Your task to perform on an android device: Open calendar and show me the fourth week of next month Image 0: 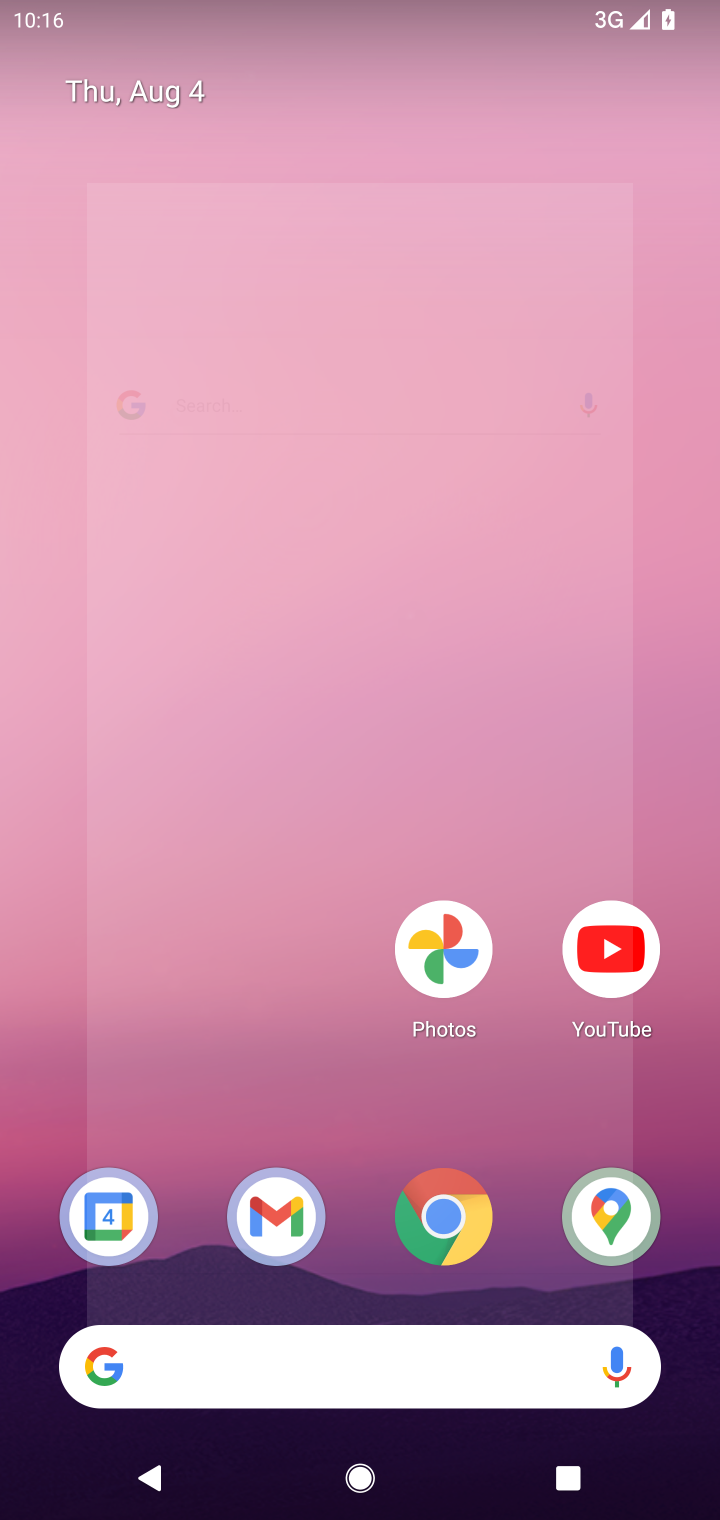
Step 0: press home button
Your task to perform on an android device: Open calendar and show me the fourth week of next month Image 1: 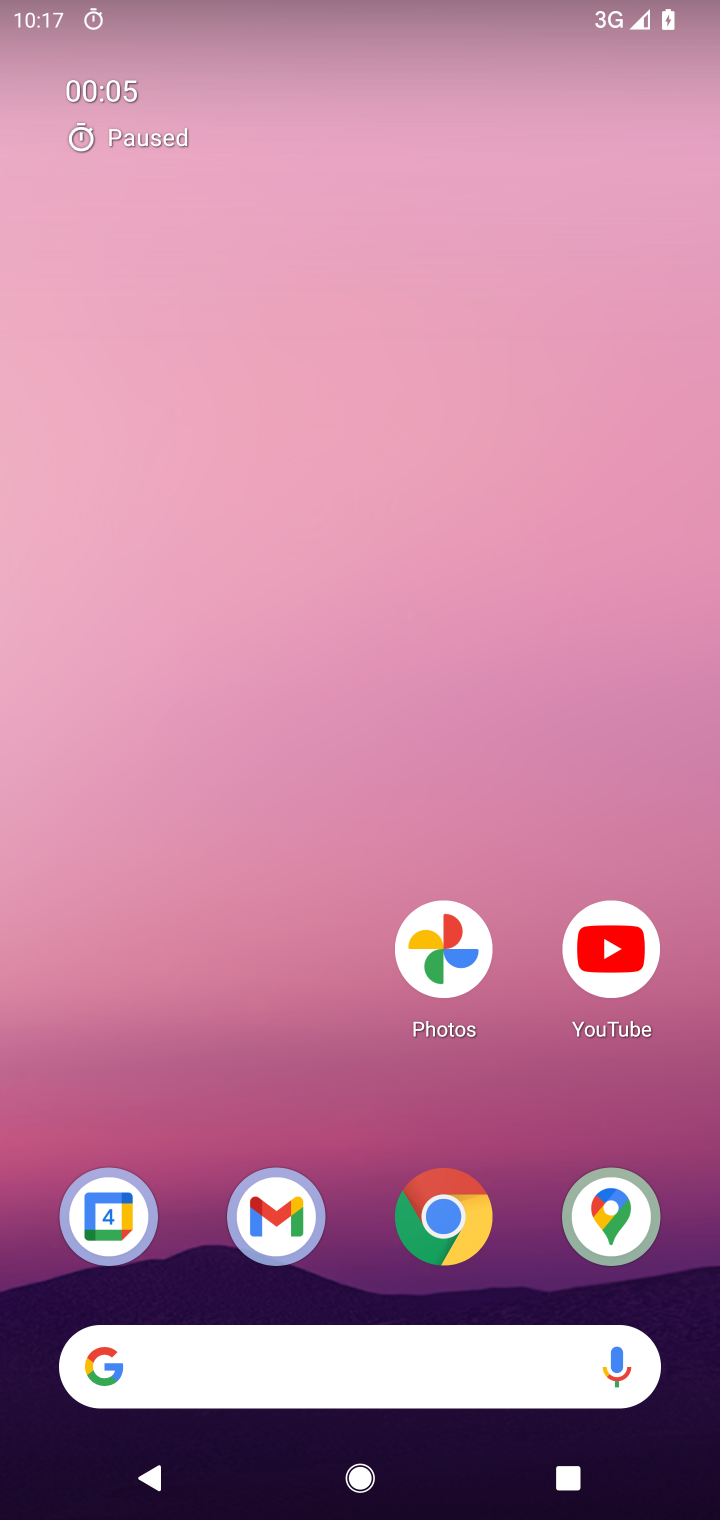
Step 1: drag from (346, 1087) to (324, 215)
Your task to perform on an android device: Open calendar and show me the fourth week of next month Image 2: 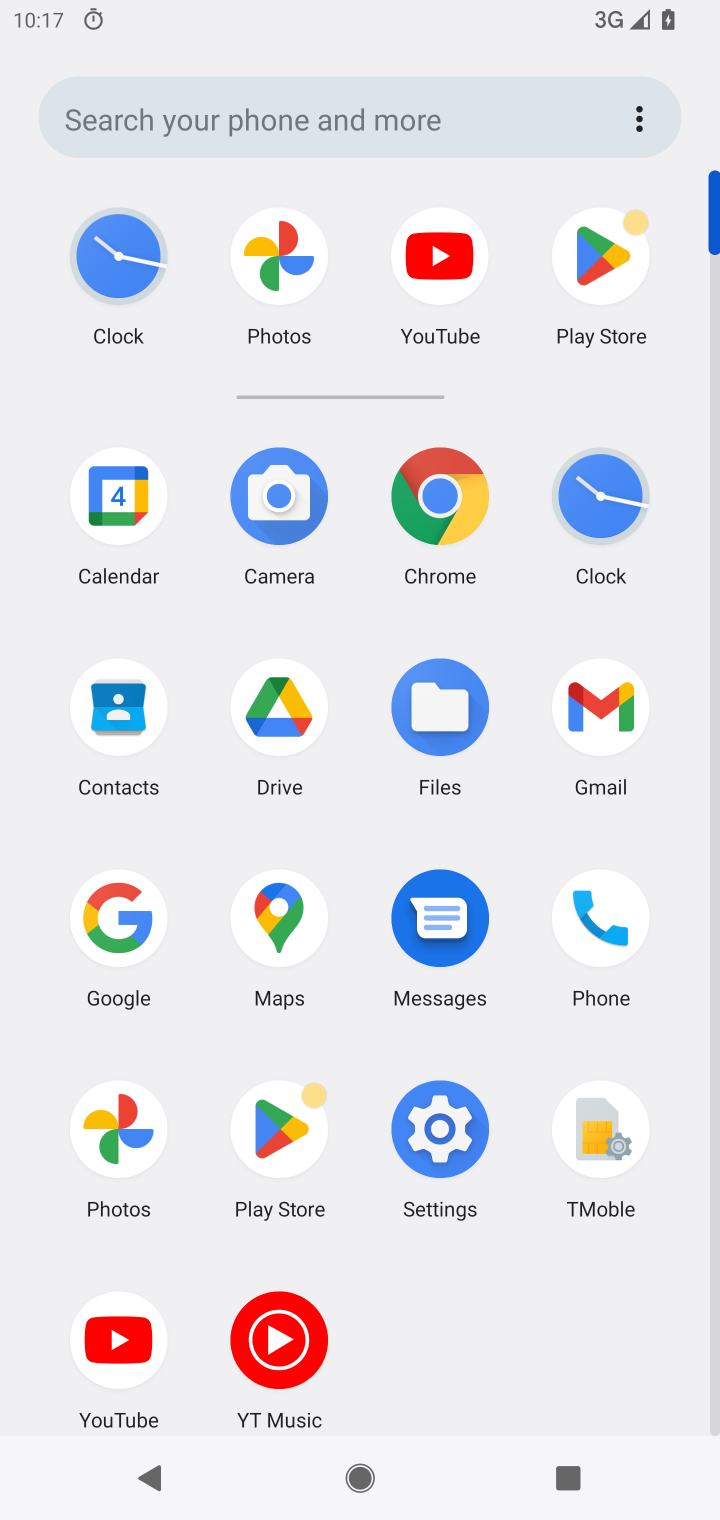
Step 2: click (124, 515)
Your task to perform on an android device: Open calendar and show me the fourth week of next month Image 3: 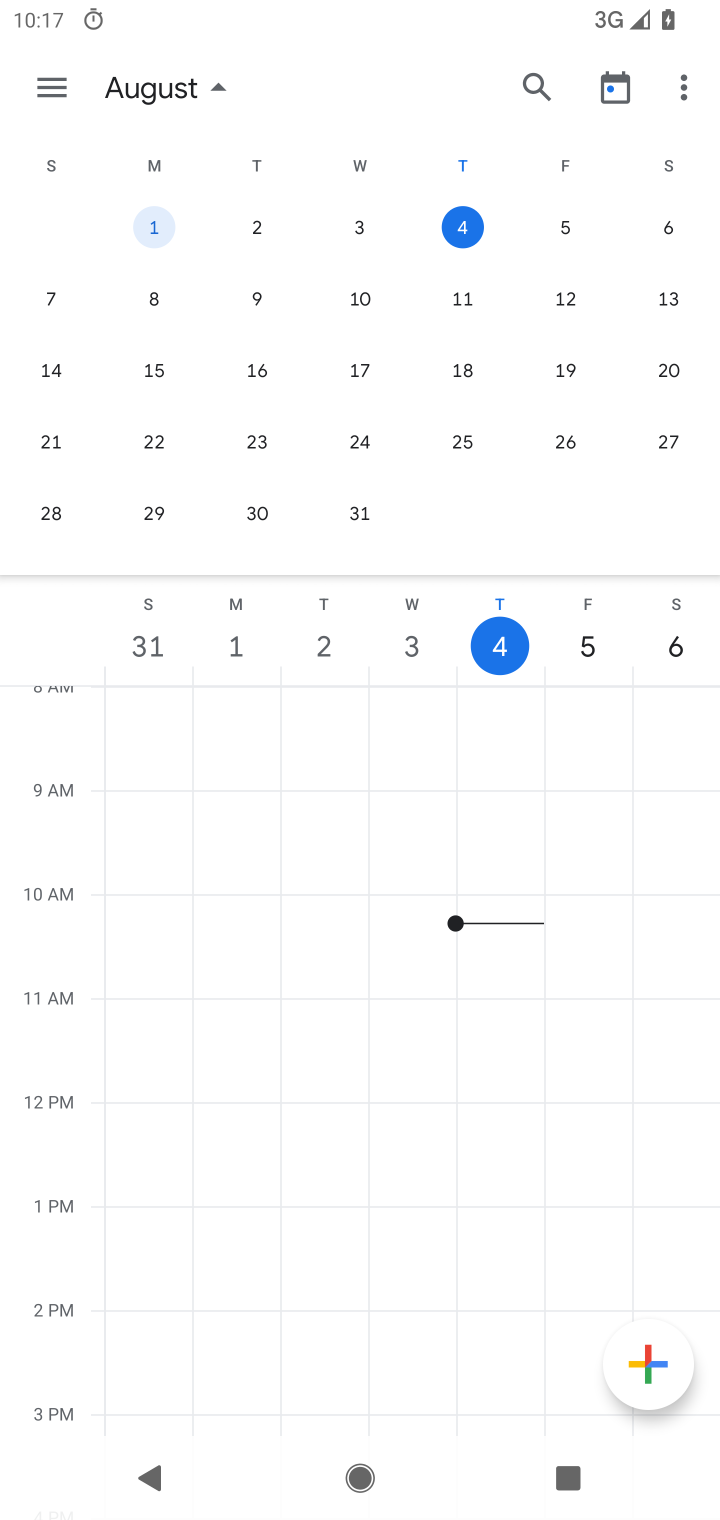
Step 3: drag from (581, 407) to (53, 403)
Your task to perform on an android device: Open calendar and show me the fourth week of next month Image 4: 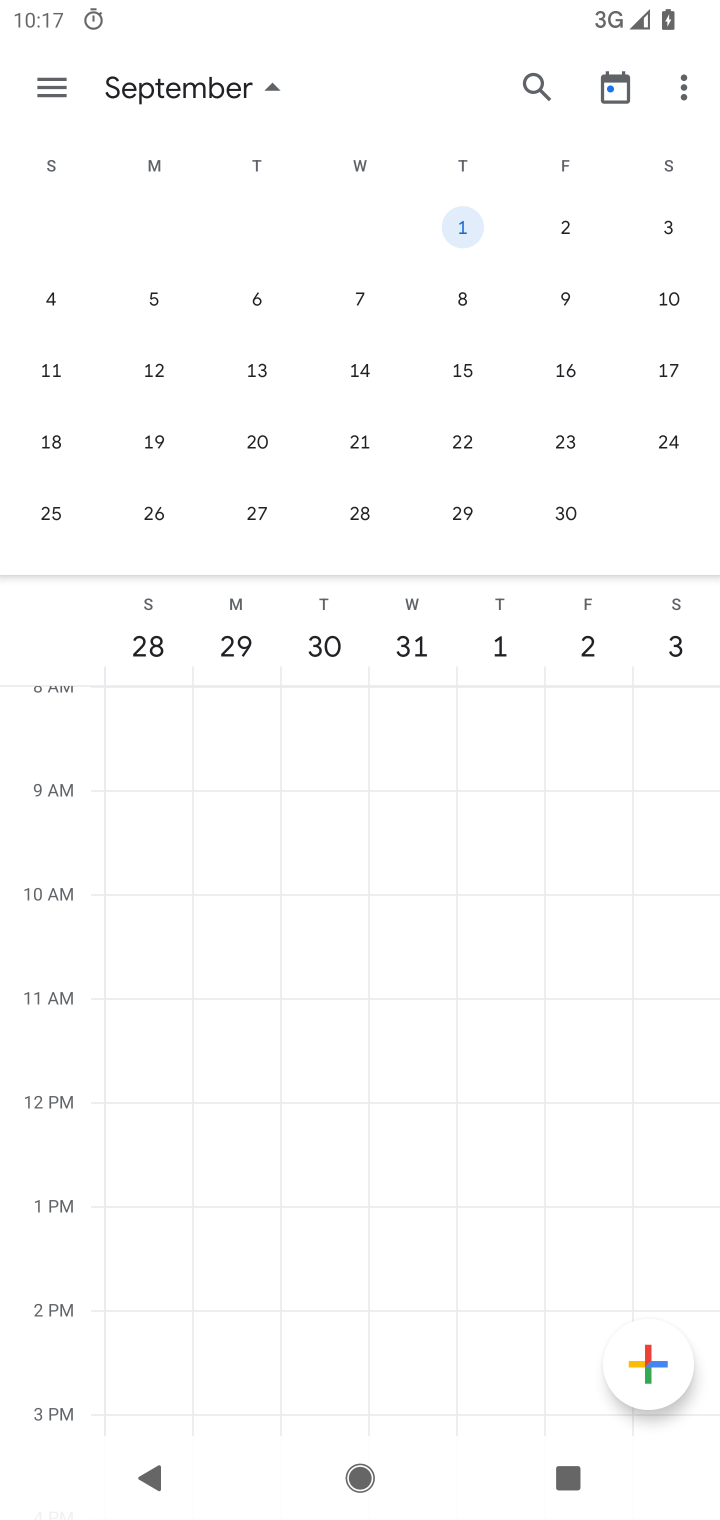
Step 4: click (144, 512)
Your task to perform on an android device: Open calendar and show me the fourth week of next month Image 5: 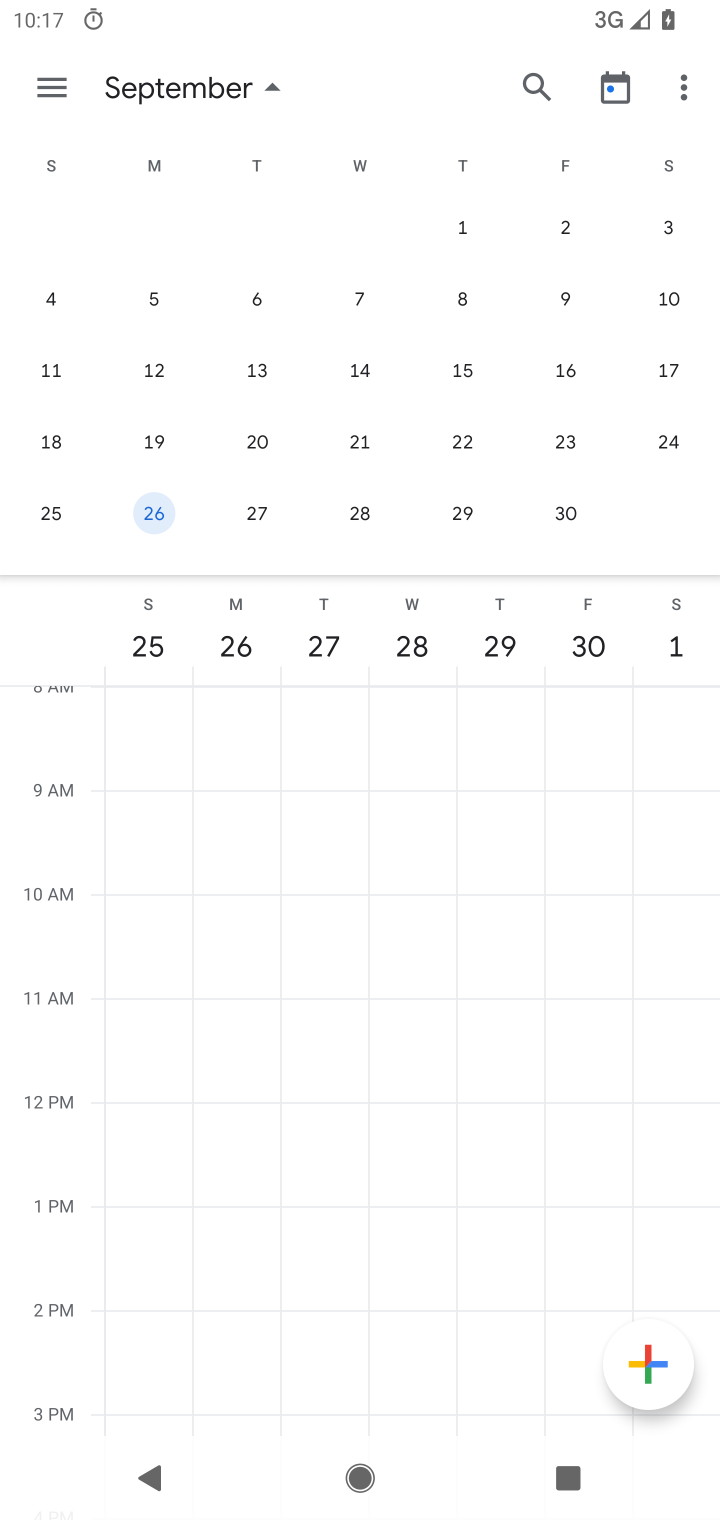
Step 5: click (68, 85)
Your task to perform on an android device: Open calendar and show me the fourth week of next month Image 6: 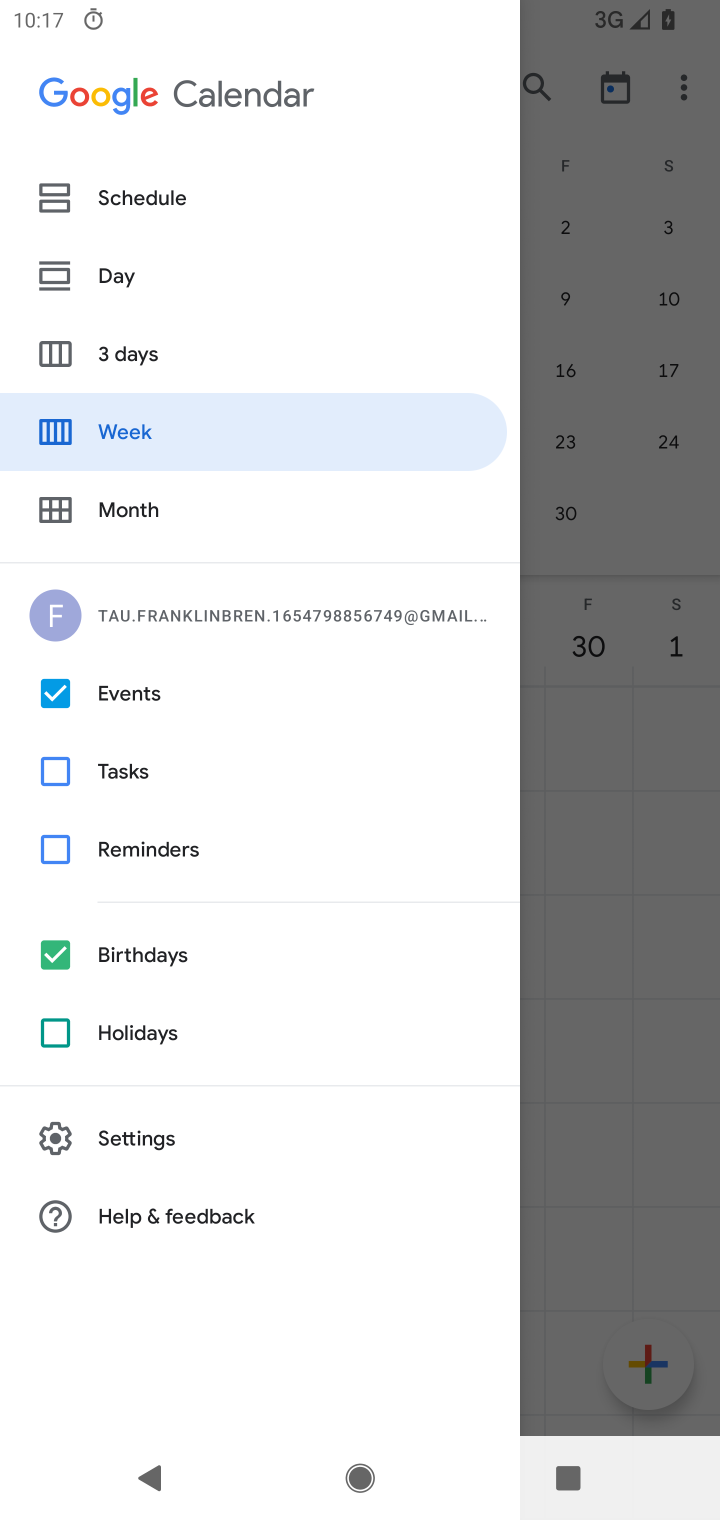
Step 6: click (150, 434)
Your task to perform on an android device: Open calendar and show me the fourth week of next month Image 7: 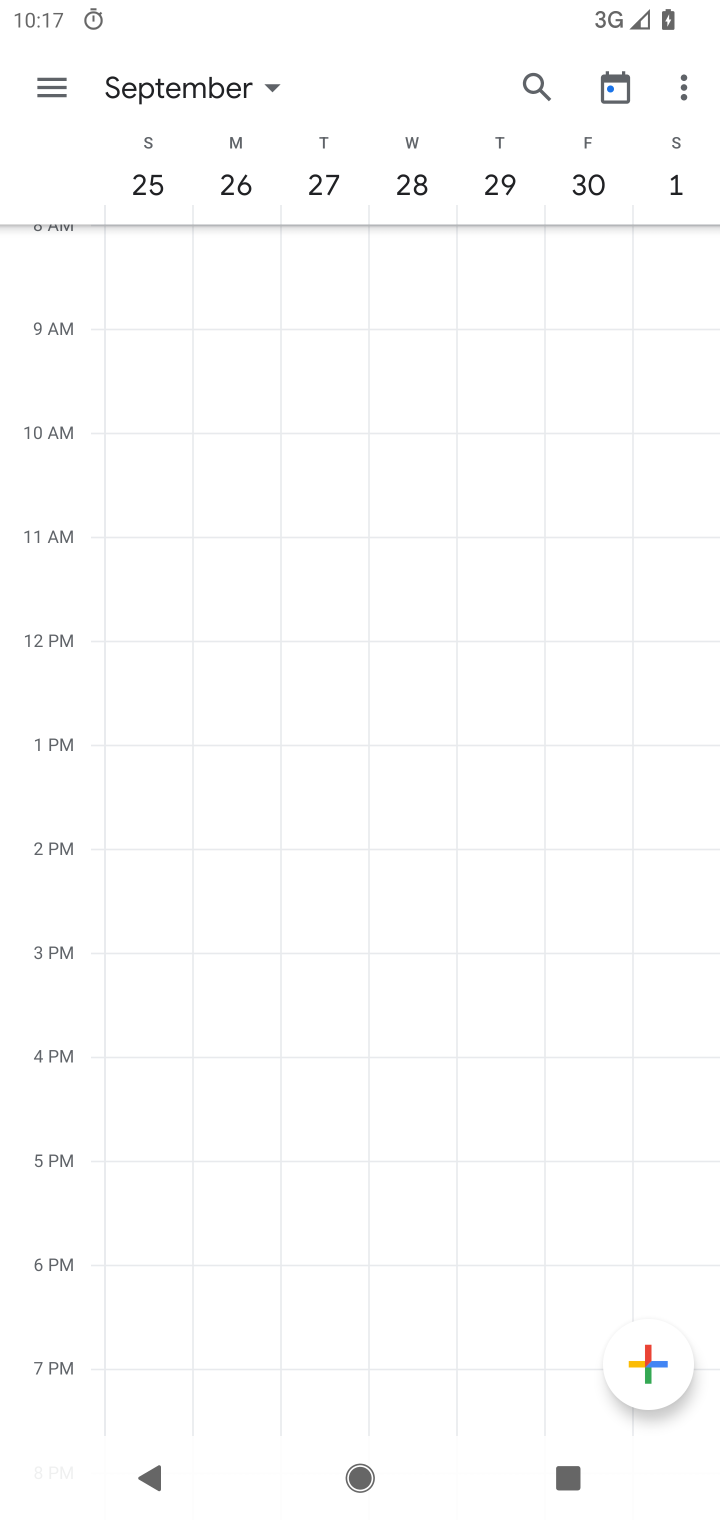
Step 7: task complete